Your task to perform on an android device: What is the recent news? Image 0: 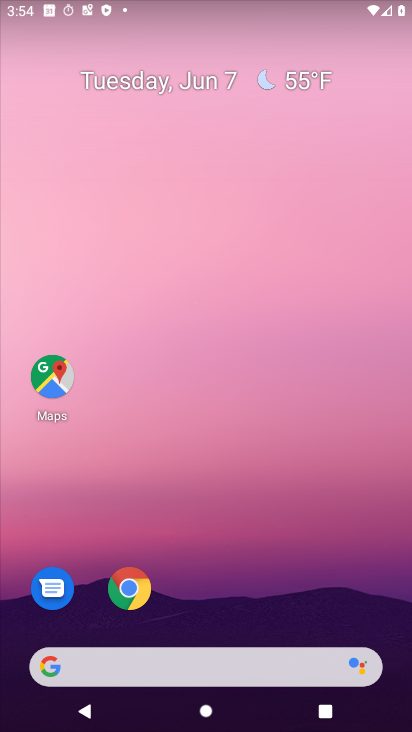
Step 0: press home button
Your task to perform on an android device: What is the recent news? Image 1: 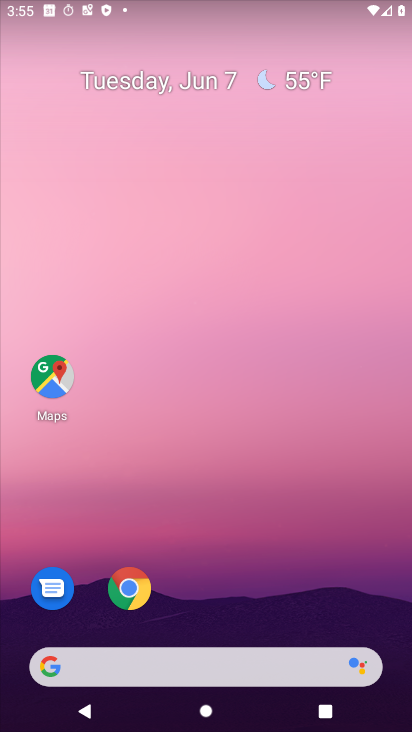
Step 1: click (50, 678)
Your task to perform on an android device: What is the recent news? Image 2: 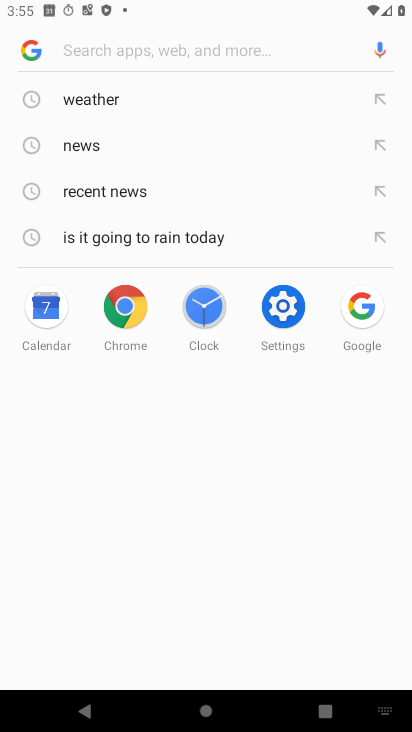
Step 2: click (108, 193)
Your task to perform on an android device: What is the recent news? Image 3: 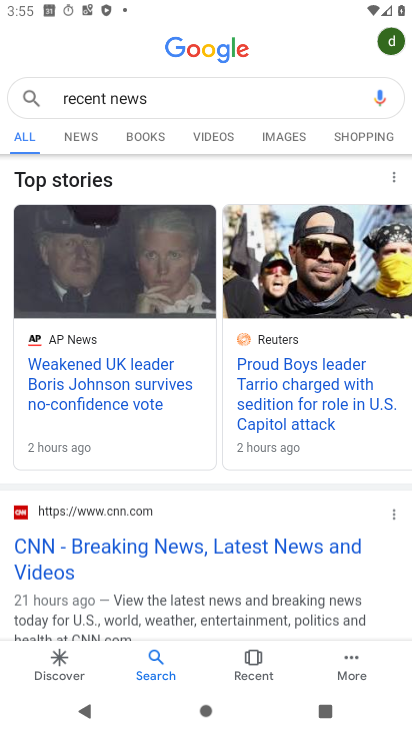
Step 3: task complete